Your task to perform on an android device: make emails show in primary in the gmail app Image 0: 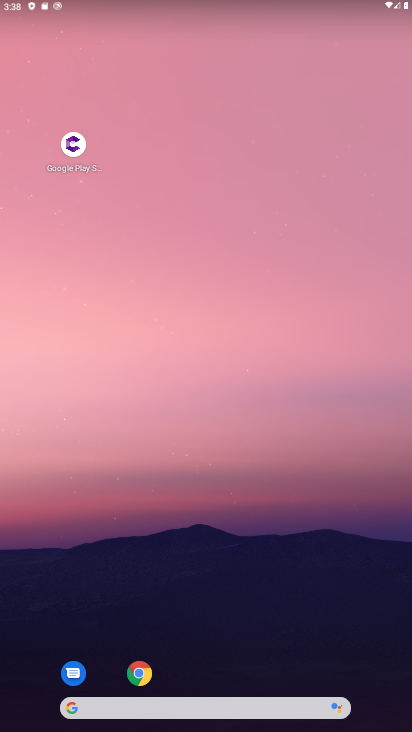
Step 0: drag from (227, 676) to (202, 163)
Your task to perform on an android device: make emails show in primary in the gmail app Image 1: 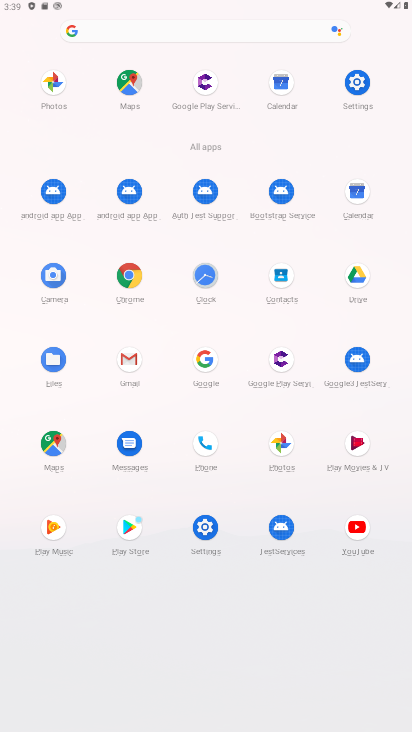
Step 1: click (125, 349)
Your task to perform on an android device: make emails show in primary in the gmail app Image 2: 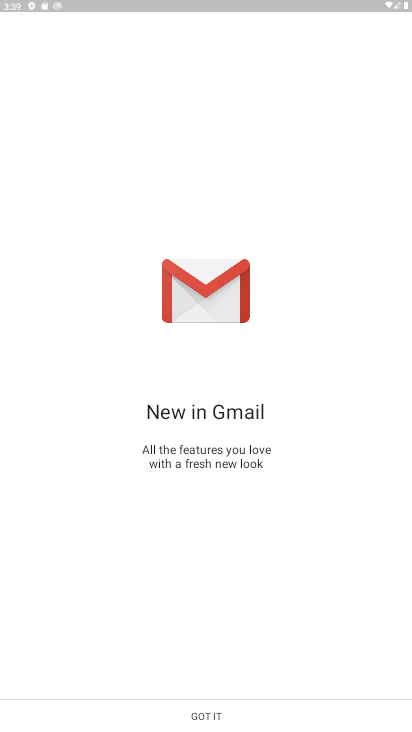
Step 2: click (210, 709)
Your task to perform on an android device: make emails show in primary in the gmail app Image 3: 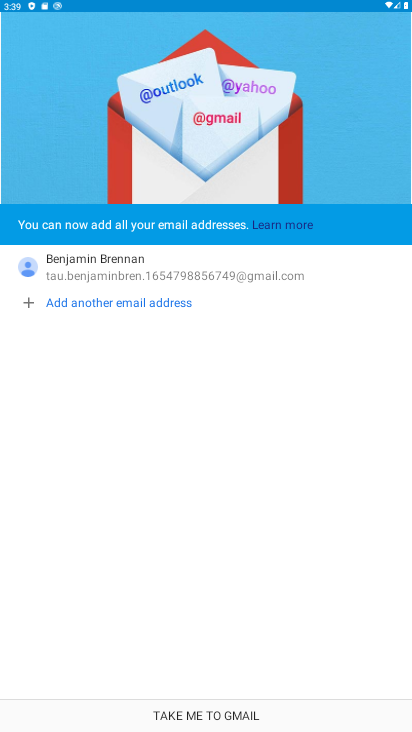
Step 3: click (200, 712)
Your task to perform on an android device: make emails show in primary in the gmail app Image 4: 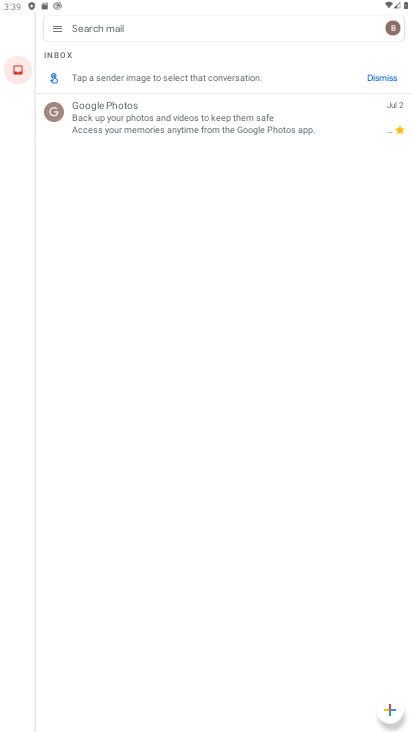
Step 4: click (54, 25)
Your task to perform on an android device: make emails show in primary in the gmail app Image 5: 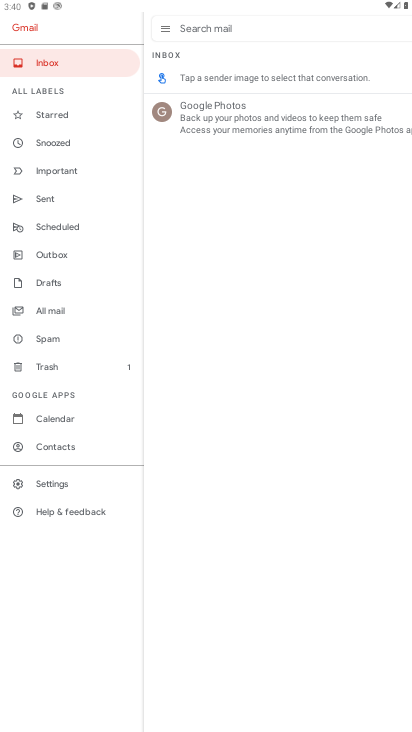
Step 5: click (68, 483)
Your task to perform on an android device: make emails show in primary in the gmail app Image 6: 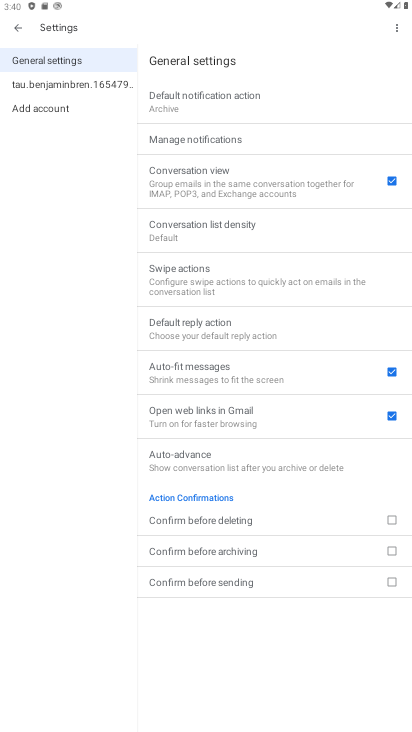
Step 6: click (75, 87)
Your task to perform on an android device: make emails show in primary in the gmail app Image 7: 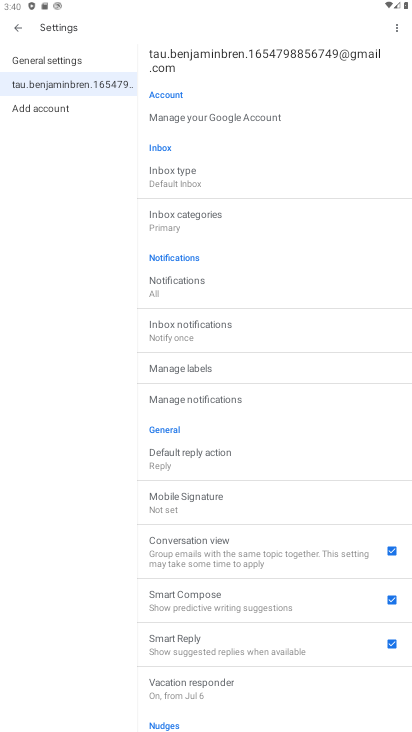
Step 7: click (195, 178)
Your task to perform on an android device: make emails show in primary in the gmail app Image 8: 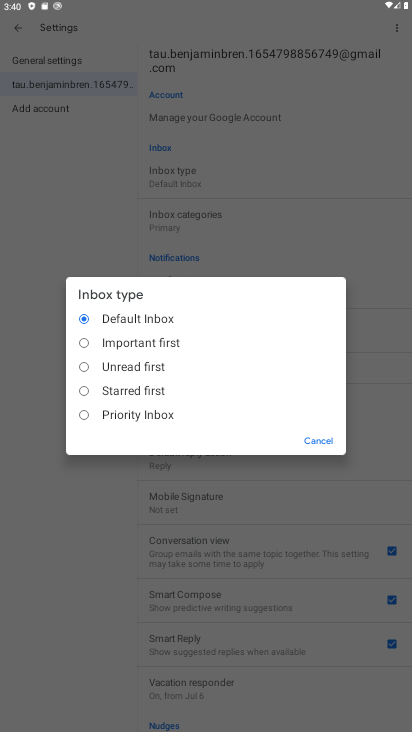
Step 8: click (125, 316)
Your task to perform on an android device: make emails show in primary in the gmail app Image 9: 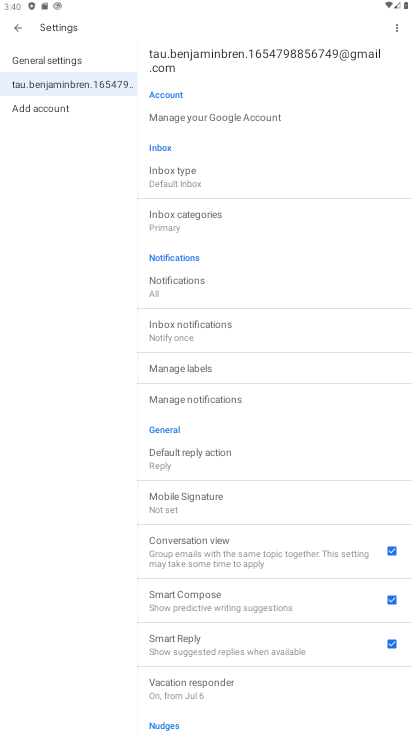
Step 9: task complete